Your task to perform on an android device: delete a single message in the gmail app Image 0: 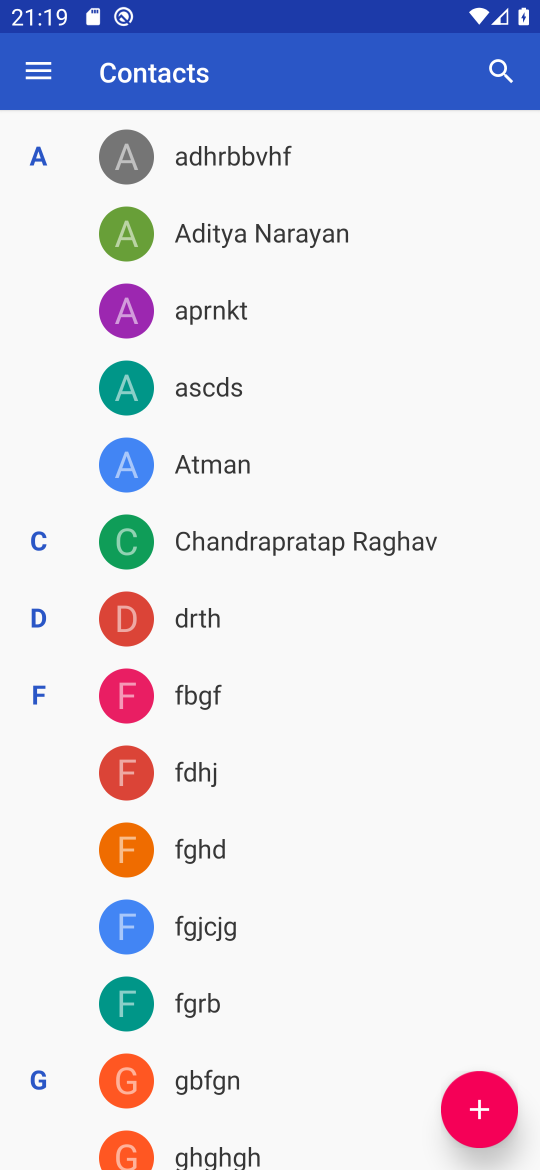
Step 0: press home button
Your task to perform on an android device: delete a single message in the gmail app Image 1: 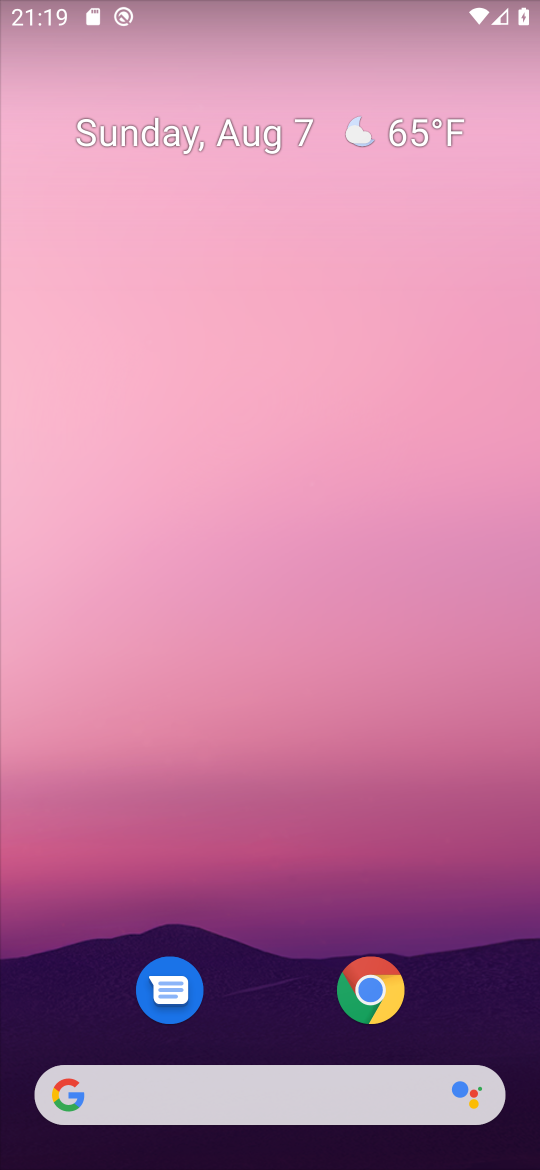
Step 1: drag from (284, 919) to (289, 0)
Your task to perform on an android device: delete a single message in the gmail app Image 2: 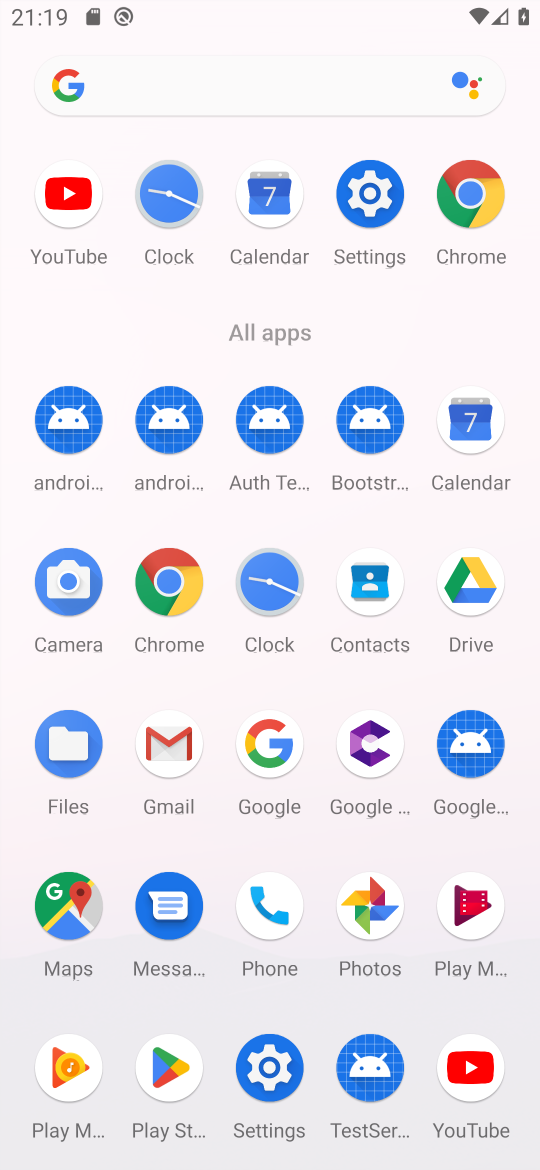
Step 2: click (179, 757)
Your task to perform on an android device: delete a single message in the gmail app Image 3: 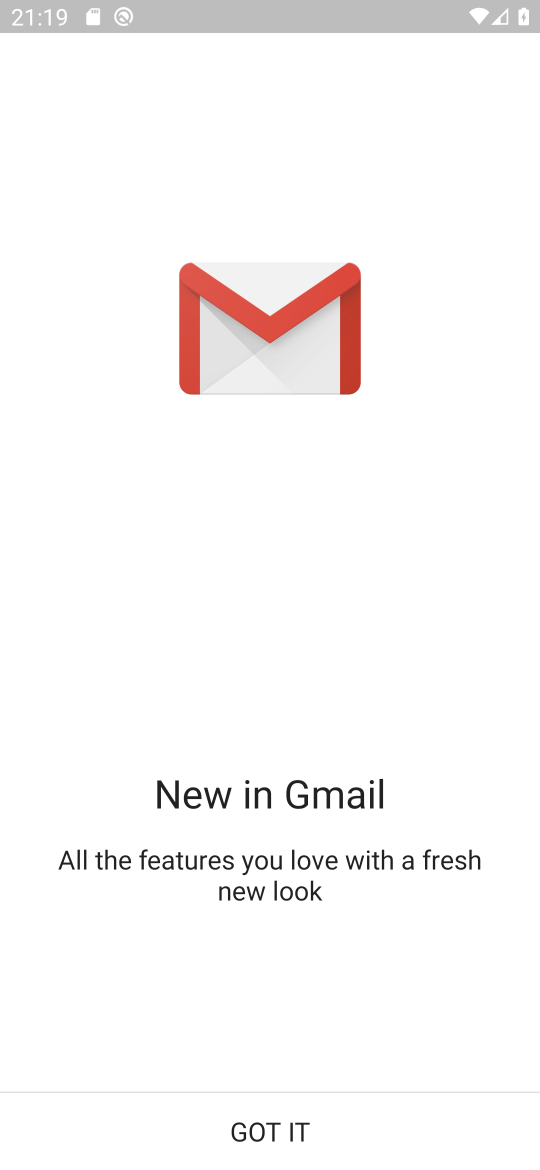
Step 3: click (268, 1137)
Your task to perform on an android device: delete a single message in the gmail app Image 4: 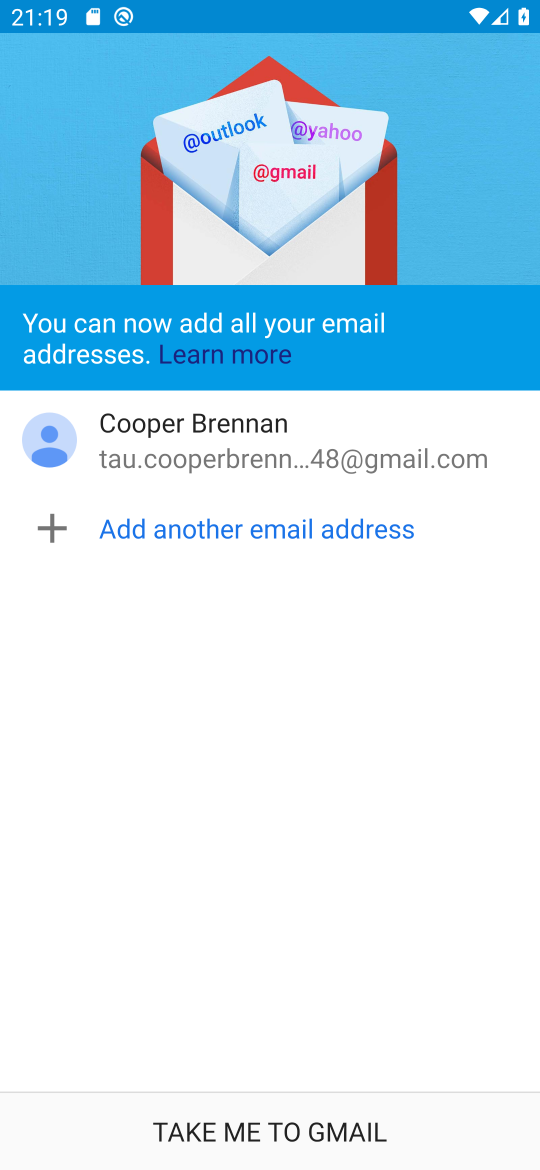
Step 4: click (268, 1137)
Your task to perform on an android device: delete a single message in the gmail app Image 5: 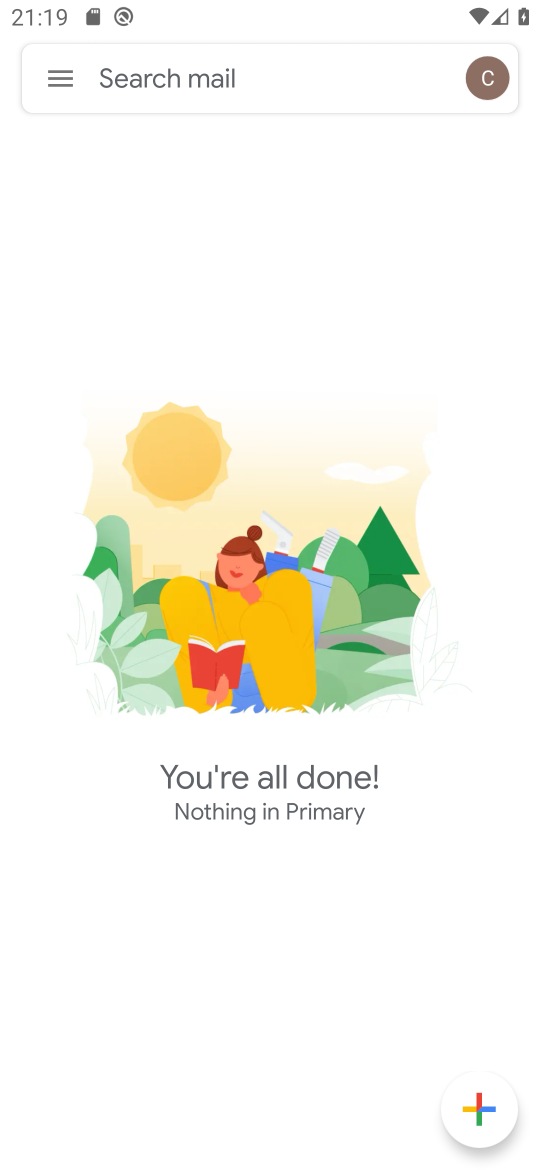
Step 5: click (57, 69)
Your task to perform on an android device: delete a single message in the gmail app Image 6: 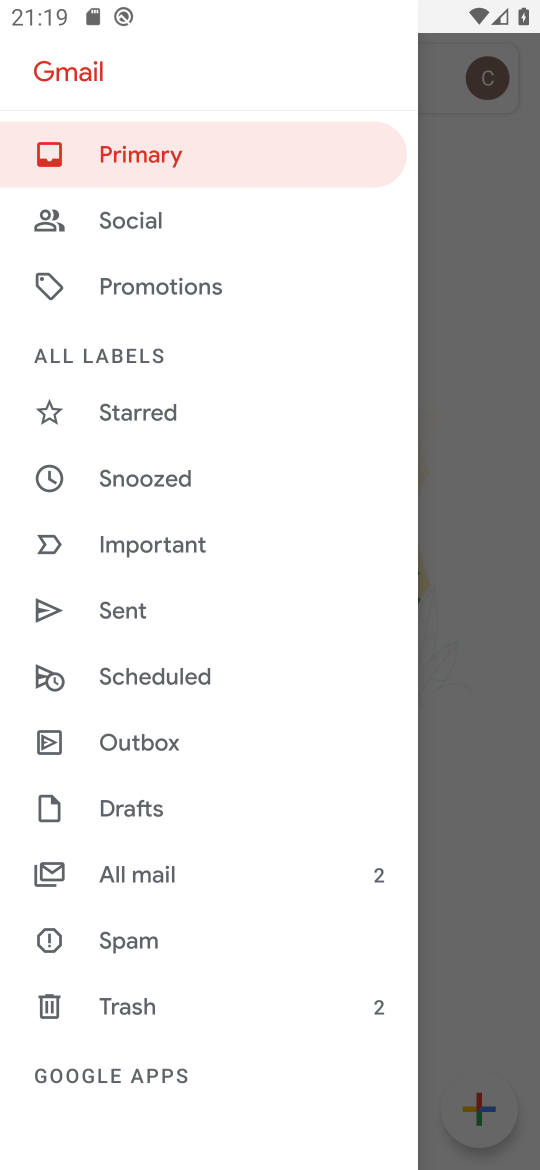
Step 6: click (167, 872)
Your task to perform on an android device: delete a single message in the gmail app Image 7: 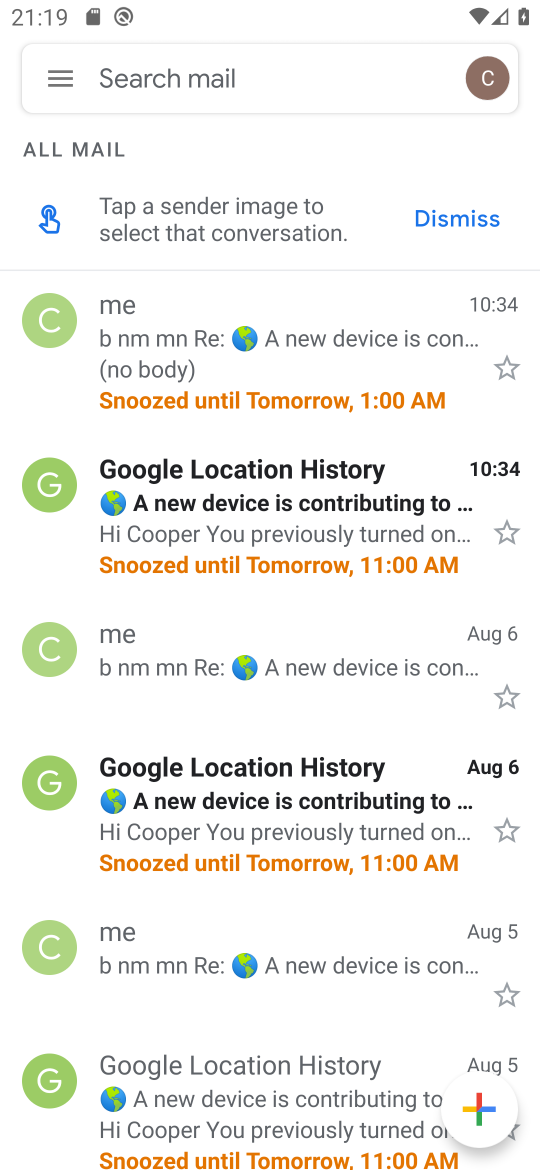
Step 7: click (69, 940)
Your task to perform on an android device: delete a single message in the gmail app Image 8: 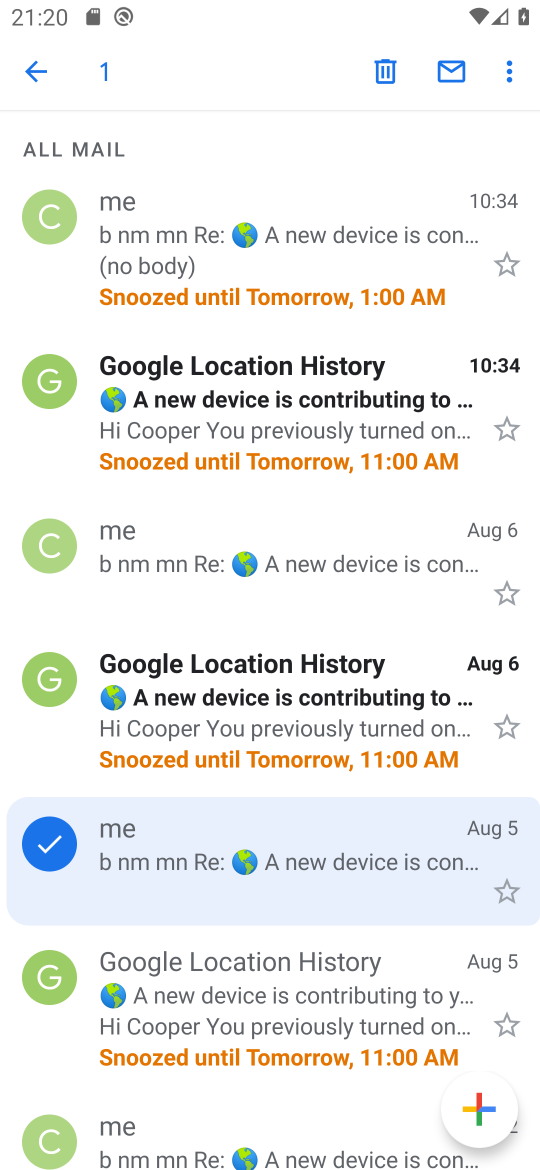
Step 8: click (383, 60)
Your task to perform on an android device: delete a single message in the gmail app Image 9: 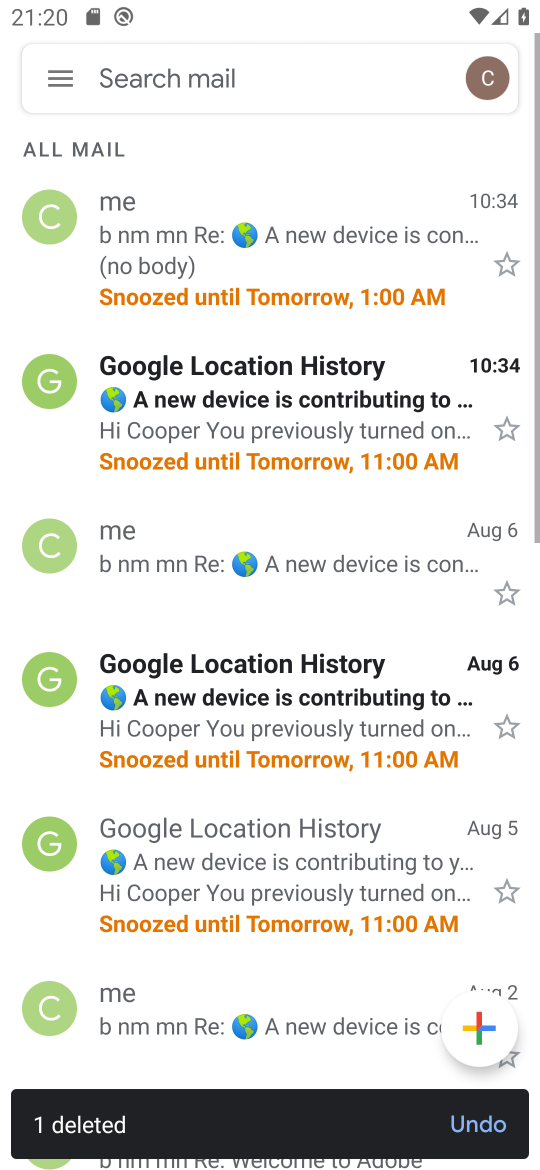
Step 9: task complete